Your task to perform on an android device: star an email in the gmail app Image 0: 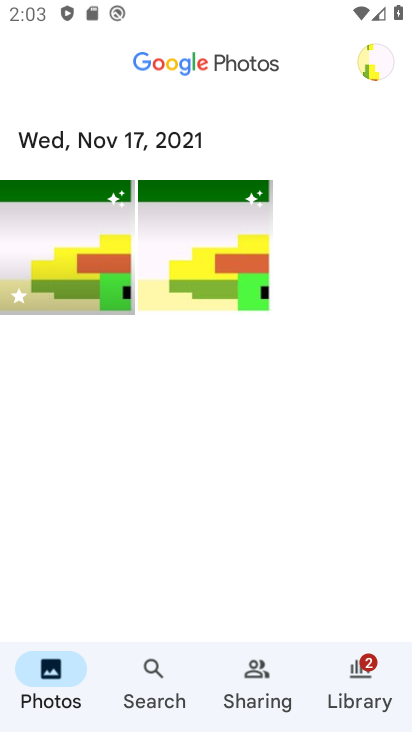
Step 0: press home button
Your task to perform on an android device: star an email in the gmail app Image 1: 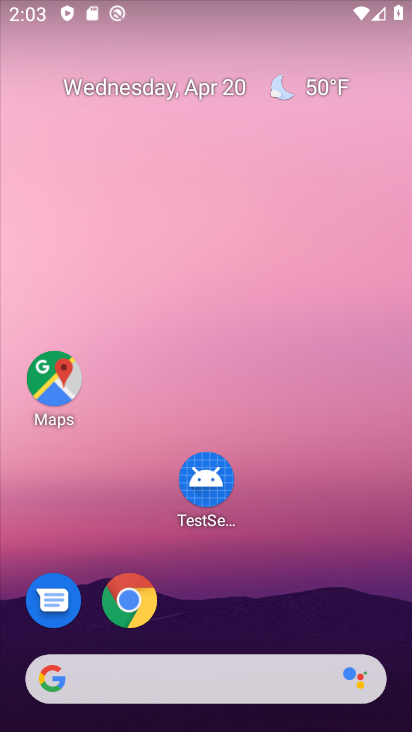
Step 1: drag from (223, 624) to (319, 96)
Your task to perform on an android device: star an email in the gmail app Image 2: 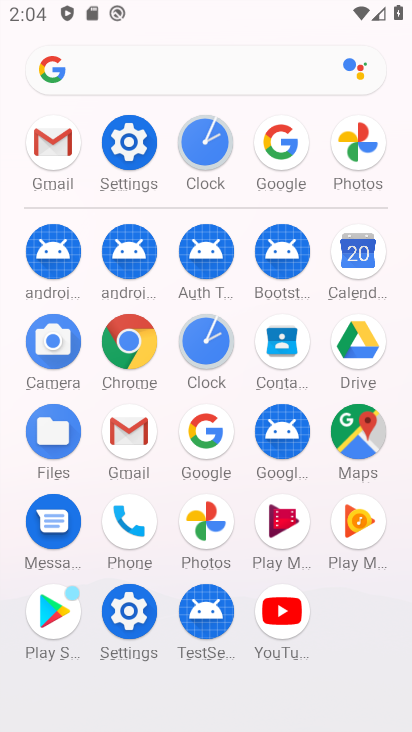
Step 2: click (127, 435)
Your task to perform on an android device: star an email in the gmail app Image 3: 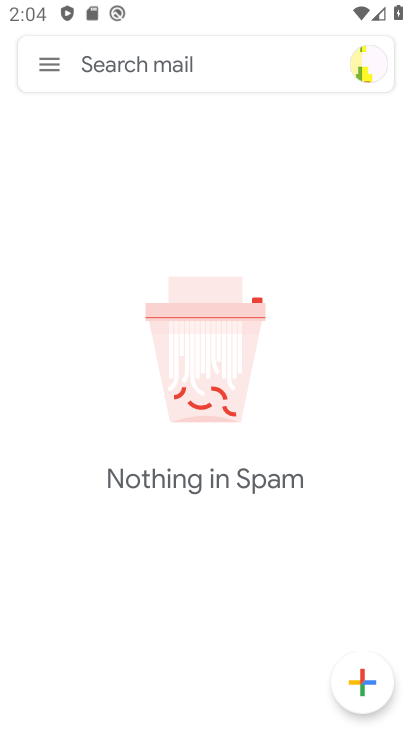
Step 3: click (42, 60)
Your task to perform on an android device: star an email in the gmail app Image 4: 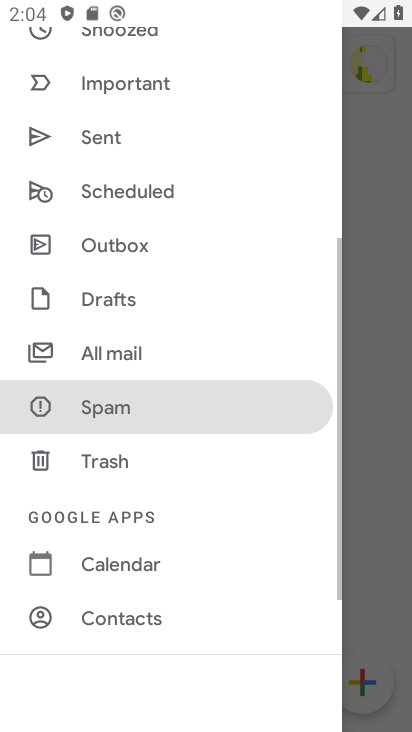
Step 4: click (185, 359)
Your task to perform on an android device: star an email in the gmail app Image 5: 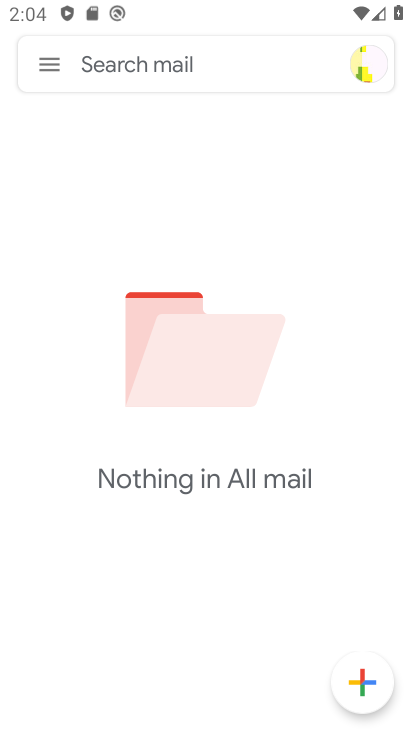
Step 5: task complete